Your task to perform on an android device: turn on data saver in the chrome app Image 0: 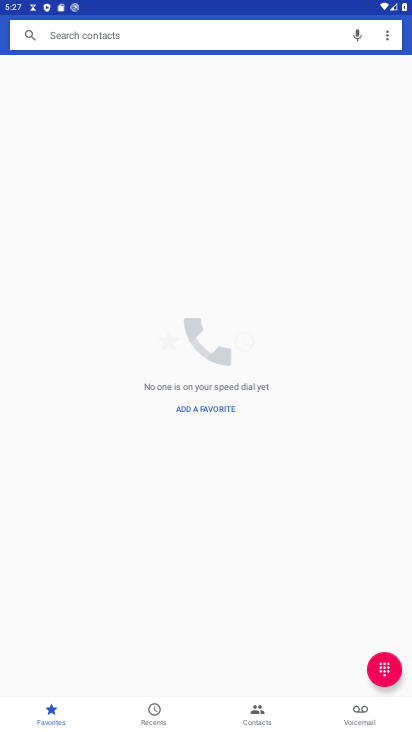
Step 0: press home button
Your task to perform on an android device: turn on data saver in the chrome app Image 1: 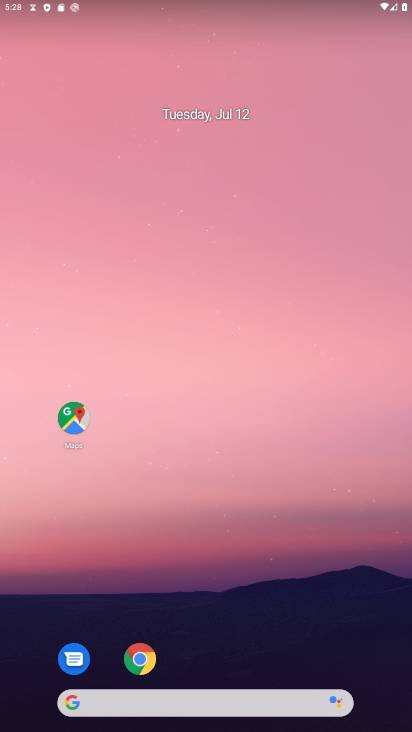
Step 1: click (145, 664)
Your task to perform on an android device: turn on data saver in the chrome app Image 2: 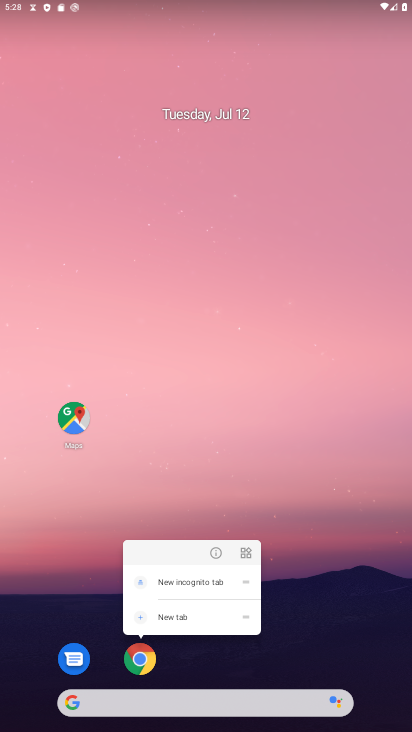
Step 2: click (149, 662)
Your task to perform on an android device: turn on data saver in the chrome app Image 3: 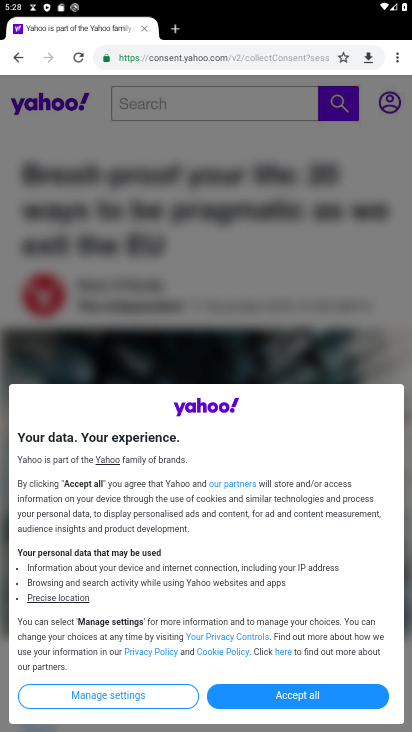
Step 3: click (399, 58)
Your task to perform on an android device: turn on data saver in the chrome app Image 4: 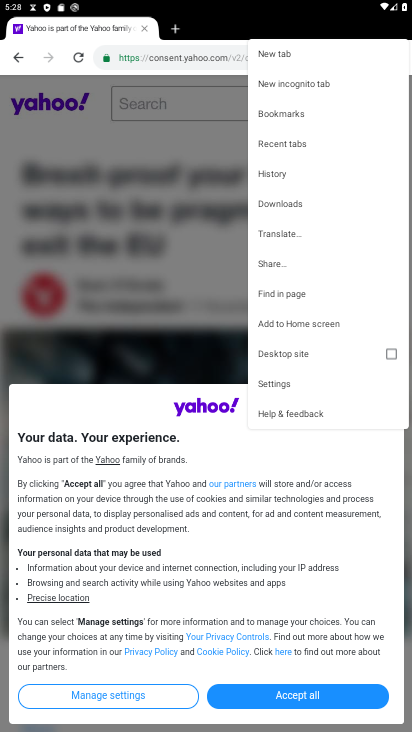
Step 4: click (282, 384)
Your task to perform on an android device: turn on data saver in the chrome app Image 5: 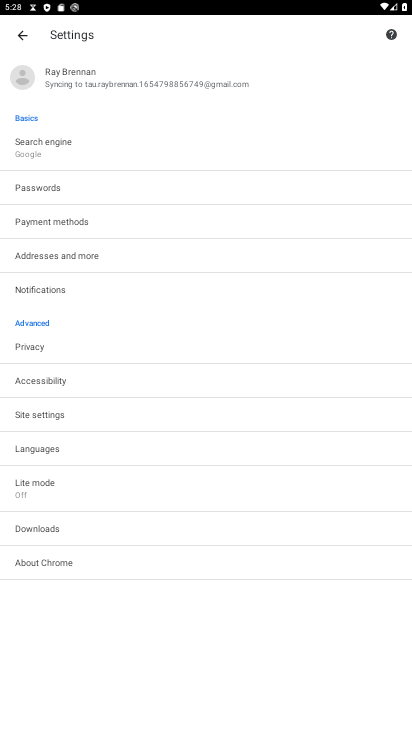
Step 5: click (36, 489)
Your task to perform on an android device: turn on data saver in the chrome app Image 6: 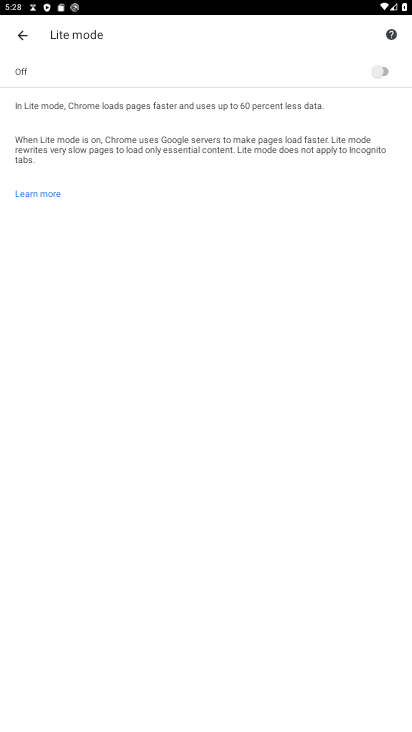
Step 6: click (378, 81)
Your task to perform on an android device: turn on data saver in the chrome app Image 7: 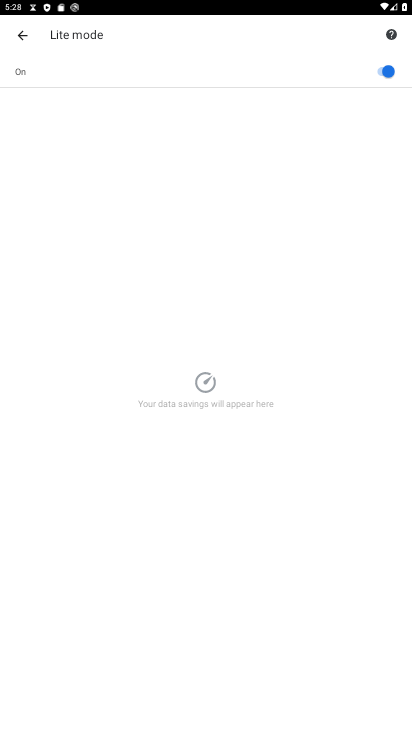
Step 7: task complete